Your task to perform on an android device: Show me the alarms in the clock app Image 0: 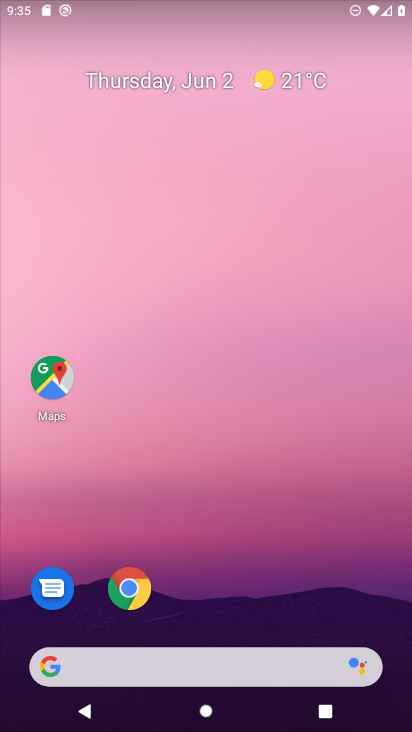
Step 0: drag from (264, 514) to (318, 129)
Your task to perform on an android device: Show me the alarms in the clock app Image 1: 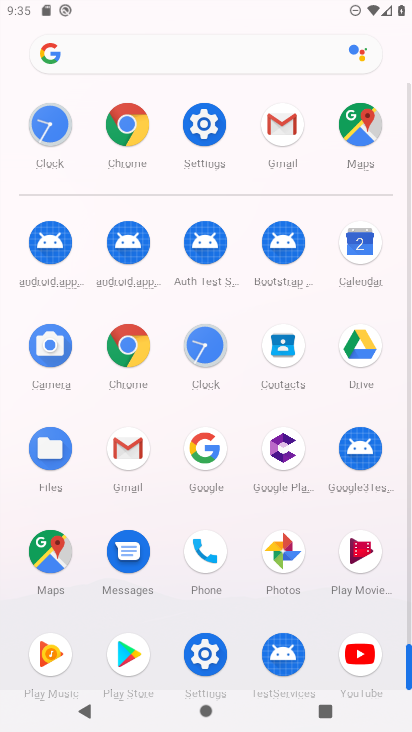
Step 1: click (212, 353)
Your task to perform on an android device: Show me the alarms in the clock app Image 2: 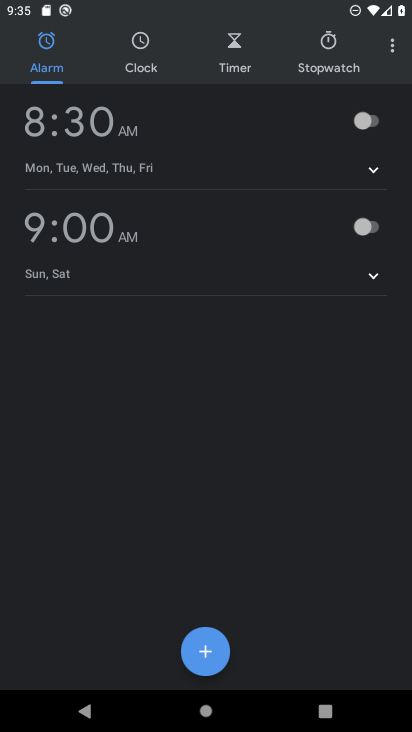
Step 2: task complete